Your task to perform on an android device: Go to eBay Image 0: 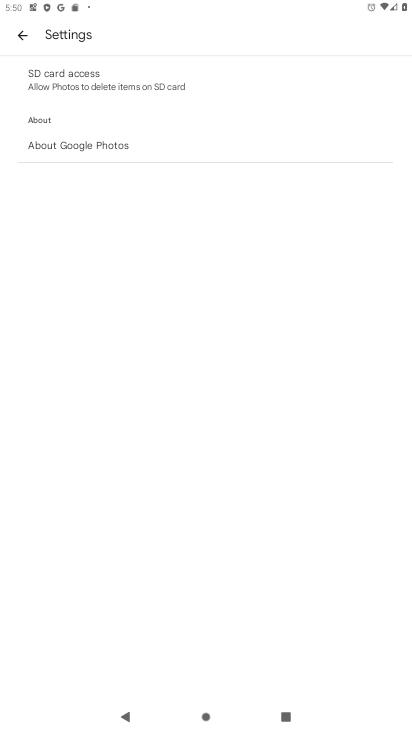
Step 0: press home button
Your task to perform on an android device: Go to eBay Image 1: 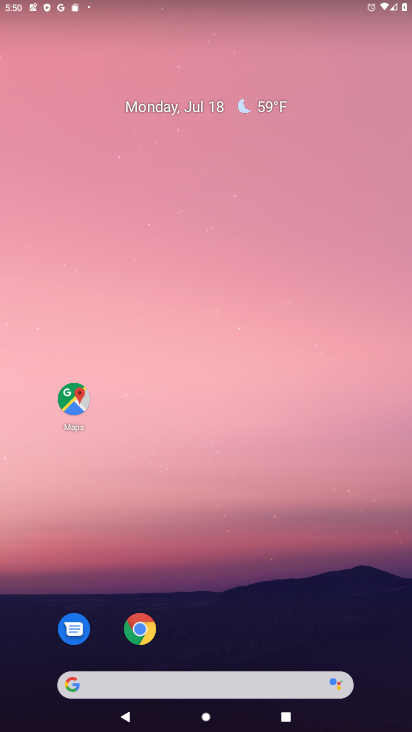
Step 1: drag from (293, 555) to (284, 59)
Your task to perform on an android device: Go to eBay Image 2: 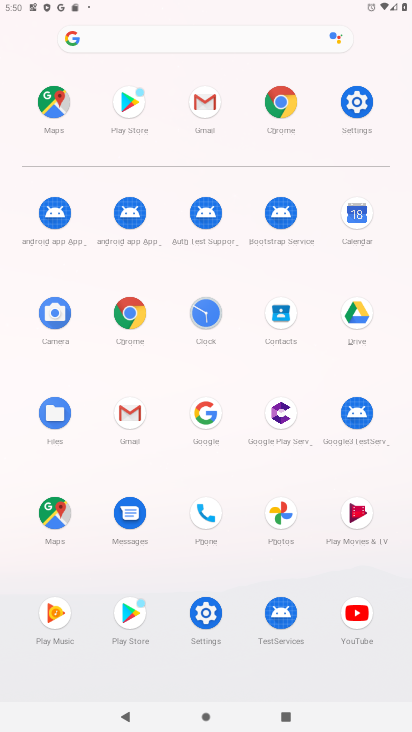
Step 2: click (125, 310)
Your task to perform on an android device: Go to eBay Image 3: 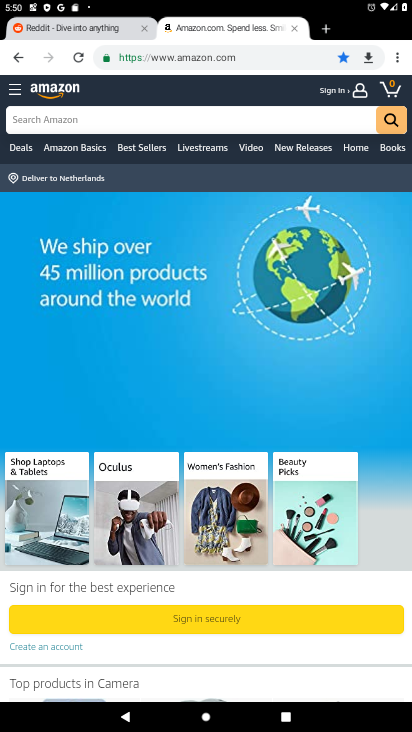
Step 3: click (216, 58)
Your task to perform on an android device: Go to eBay Image 4: 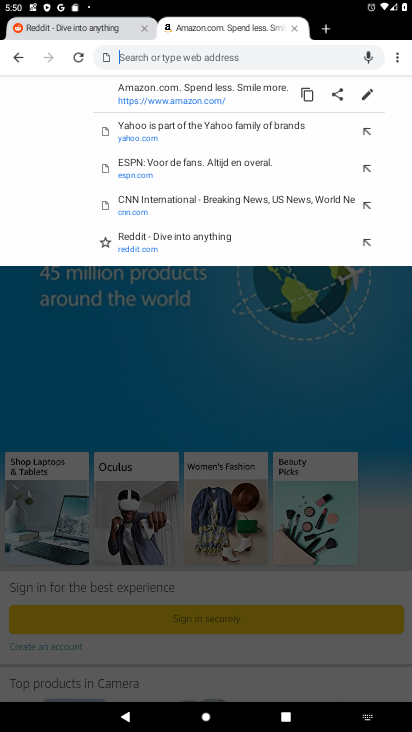
Step 4: type "ebay"
Your task to perform on an android device: Go to eBay Image 5: 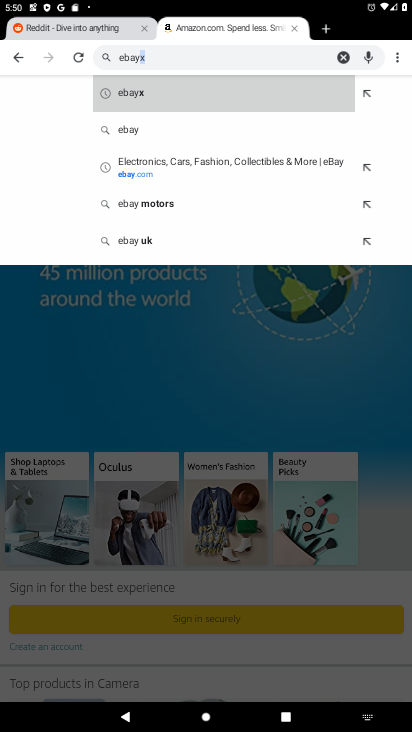
Step 5: click (129, 170)
Your task to perform on an android device: Go to eBay Image 6: 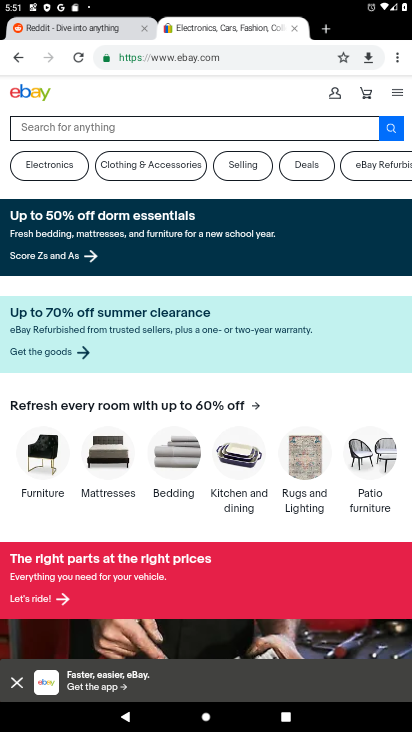
Step 6: task complete